Your task to perform on an android device: Go to notification settings Image 0: 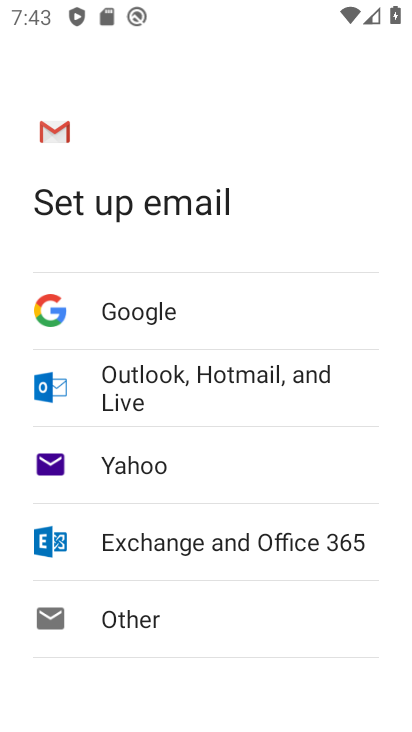
Step 0: drag from (223, 18) to (213, 722)
Your task to perform on an android device: Go to notification settings Image 1: 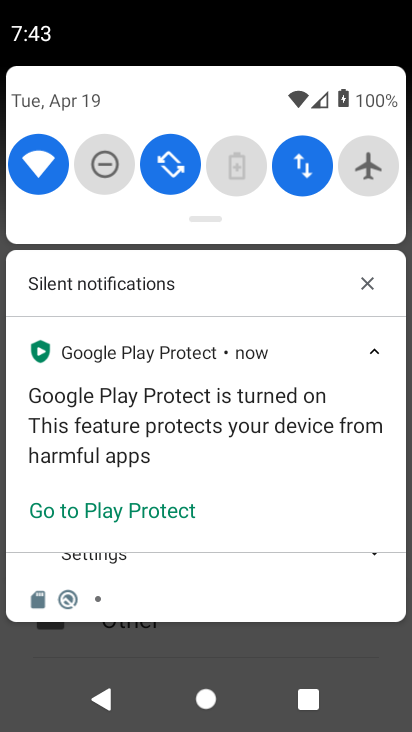
Step 1: drag from (202, 11) to (226, 585)
Your task to perform on an android device: Go to notification settings Image 2: 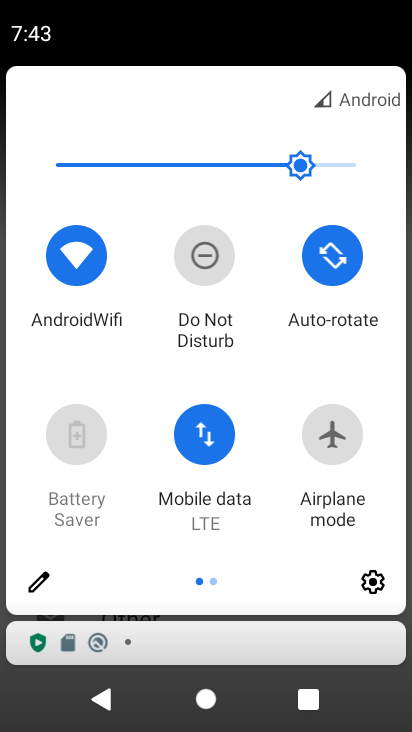
Step 2: click (375, 580)
Your task to perform on an android device: Go to notification settings Image 3: 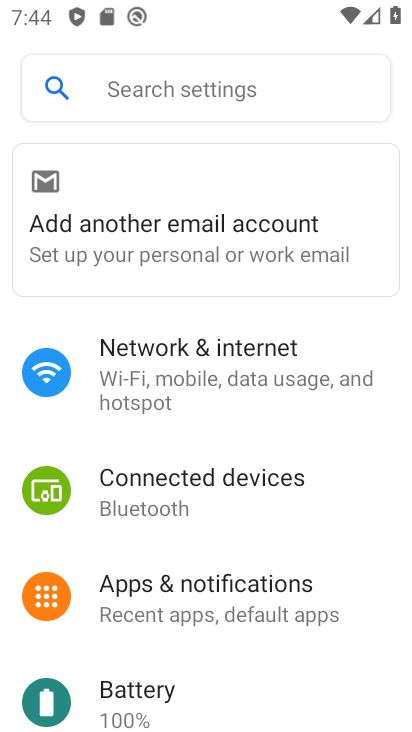
Step 3: click (106, 619)
Your task to perform on an android device: Go to notification settings Image 4: 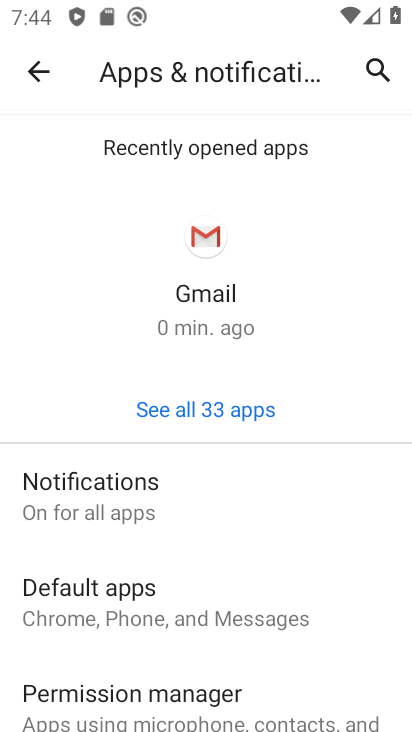
Step 4: task complete